Your task to perform on an android device: open device folders in google photos Image 0: 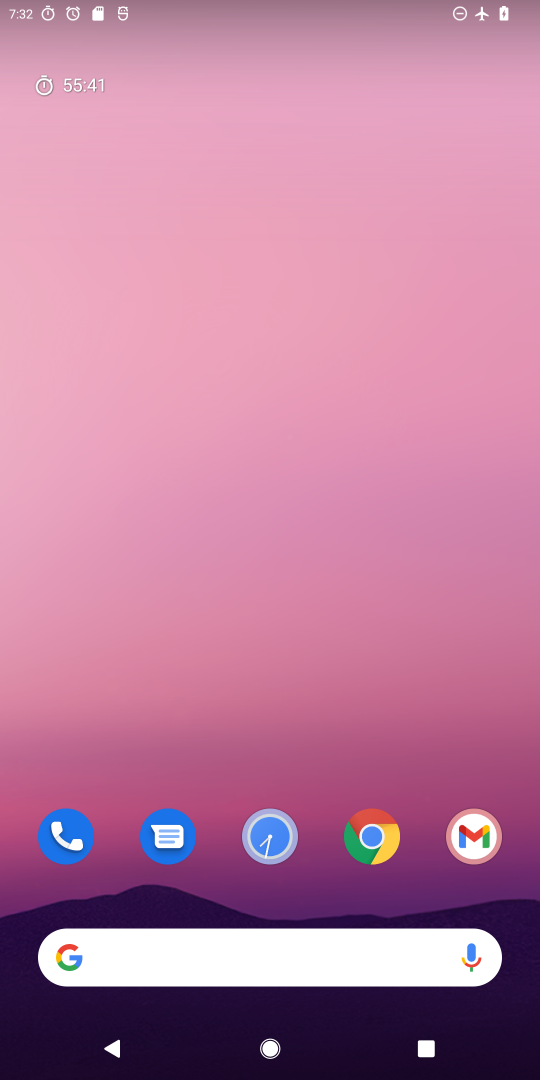
Step 0: drag from (291, 515) to (360, 8)
Your task to perform on an android device: open device folders in google photos Image 1: 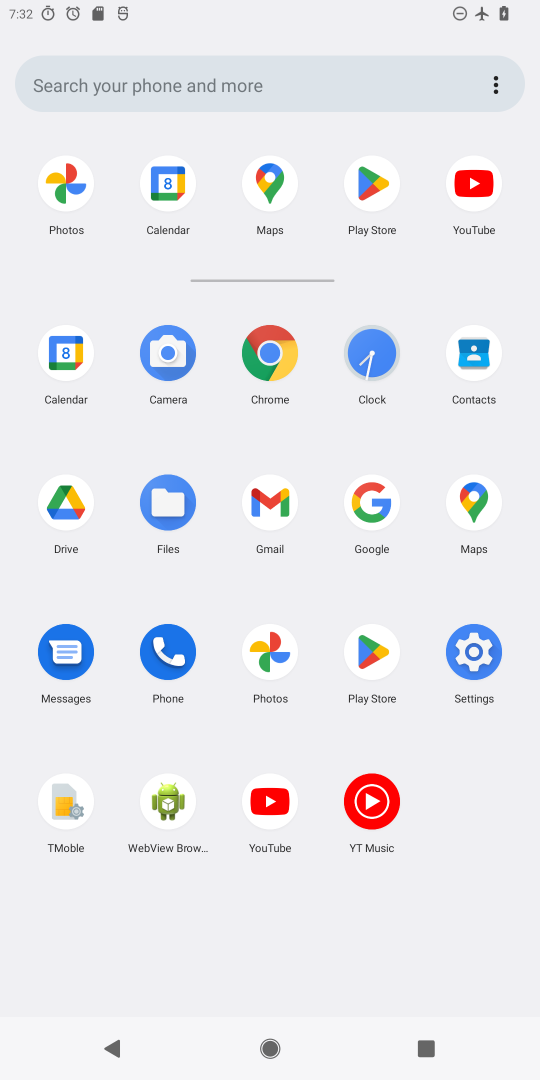
Step 1: click (259, 655)
Your task to perform on an android device: open device folders in google photos Image 2: 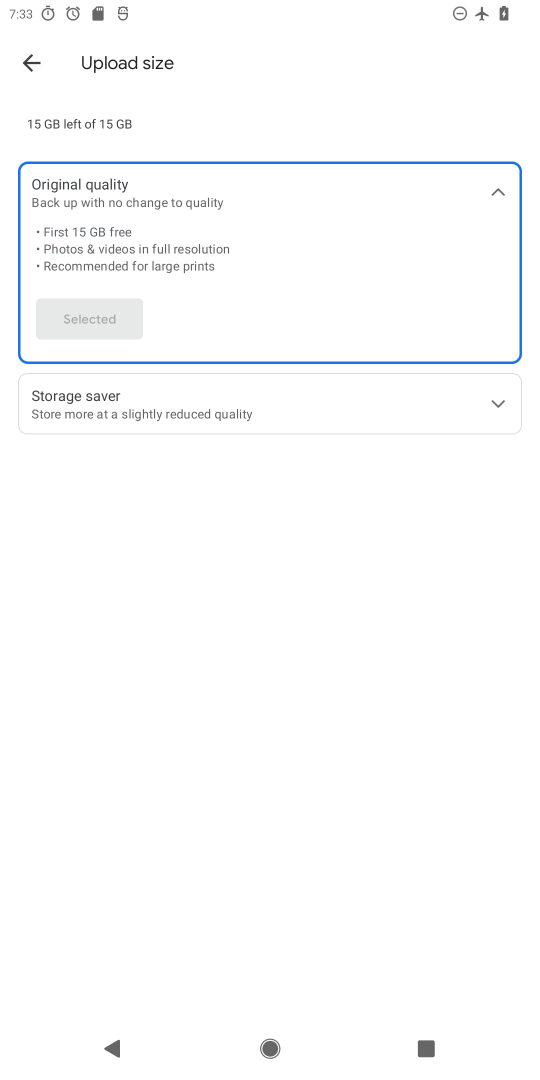
Step 2: task complete